Your task to perform on an android device: Go to Amazon Image 0: 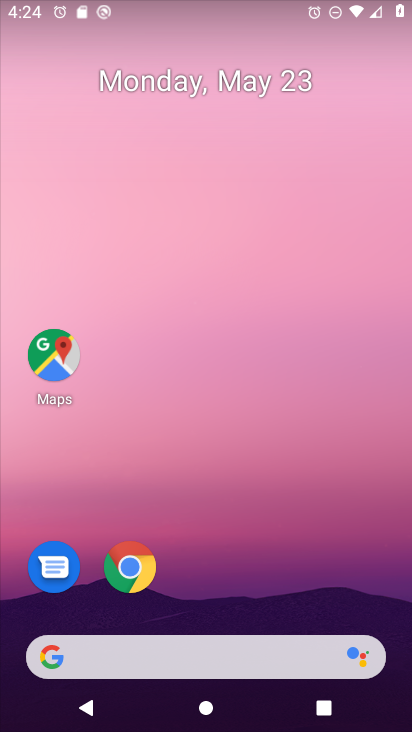
Step 0: click (135, 565)
Your task to perform on an android device: Go to Amazon Image 1: 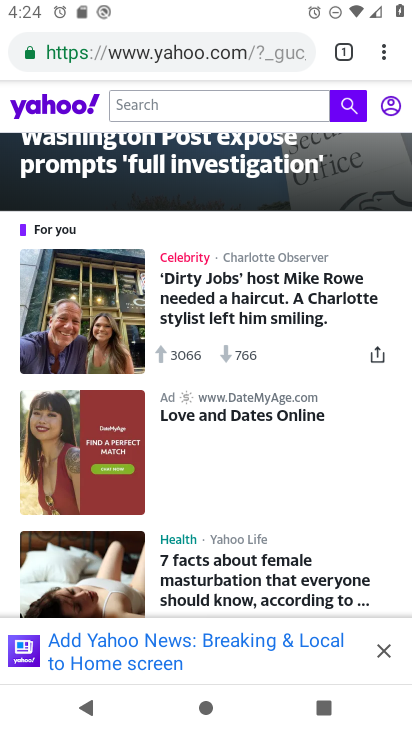
Step 1: click (154, 53)
Your task to perform on an android device: Go to Amazon Image 2: 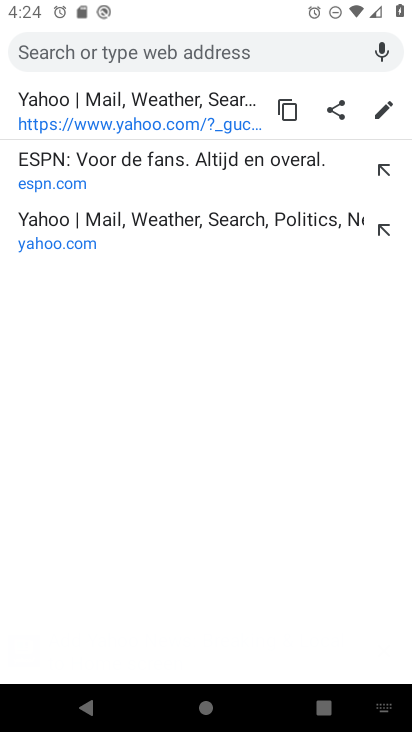
Step 2: type "amazon"
Your task to perform on an android device: Go to Amazon Image 3: 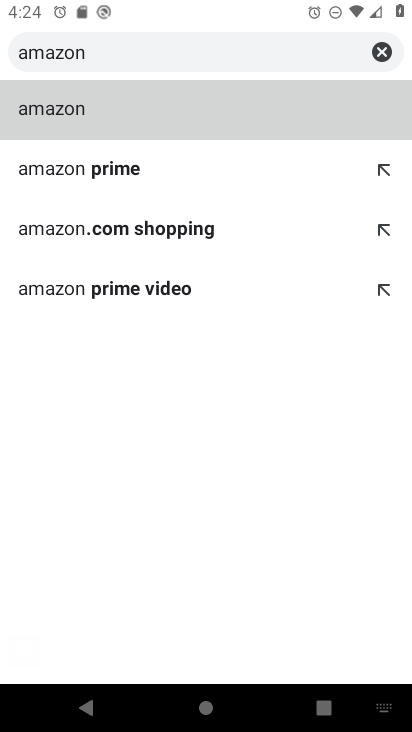
Step 3: click (65, 110)
Your task to perform on an android device: Go to Amazon Image 4: 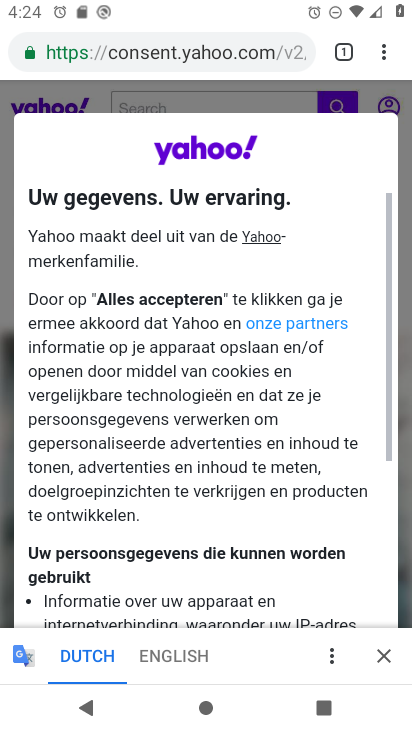
Step 4: drag from (253, 541) to (277, 124)
Your task to perform on an android device: Go to Amazon Image 5: 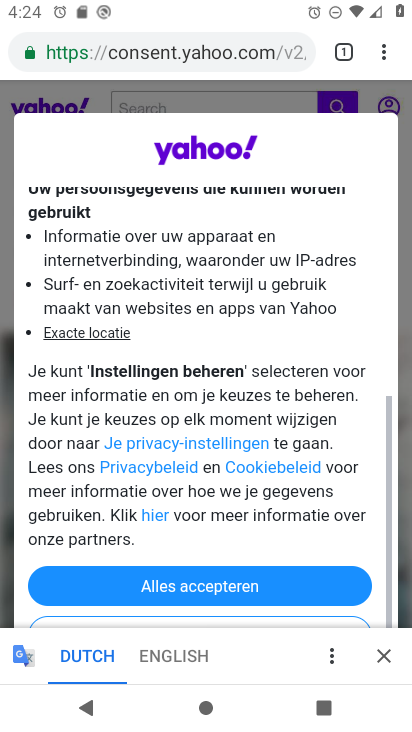
Step 5: click (183, 587)
Your task to perform on an android device: Go to Amazon Image 6: 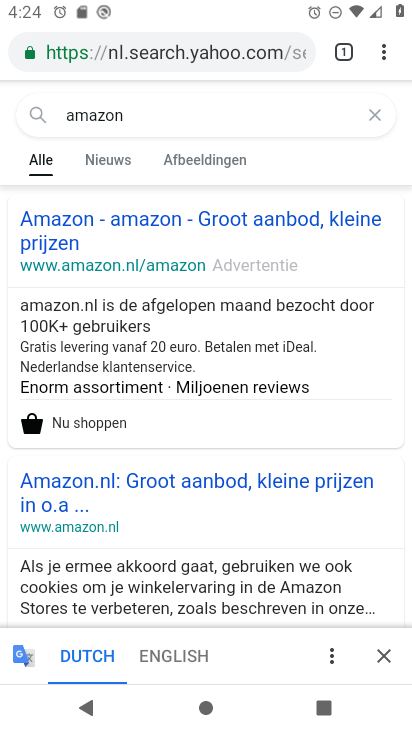
Step 6: click (69, 235)
Your task to perform on an android device: Go to Amazon Image 7: 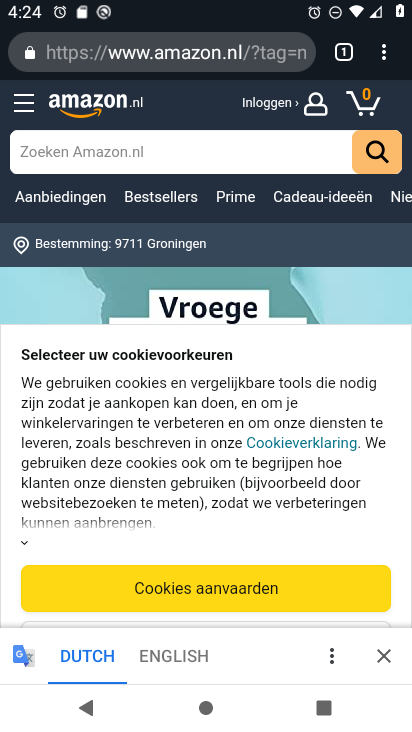
Step 7: task complete